Your task to perform on an android device: turn vacation reply on in the gmail app Image 0: 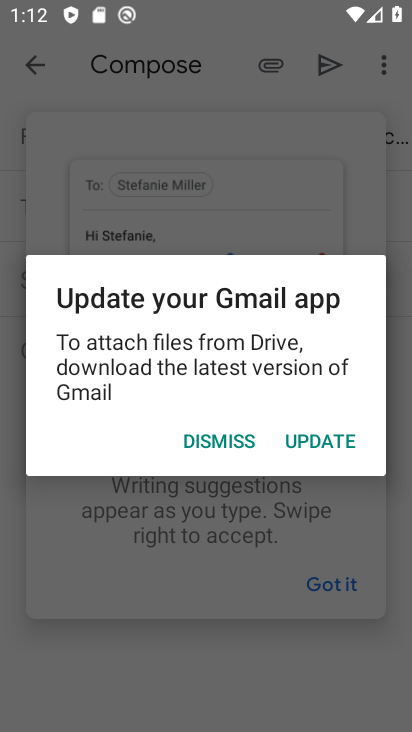
Step 0: press home button
Your task to perform on an android device: turn vacation reply on in the gmail app Image 1: 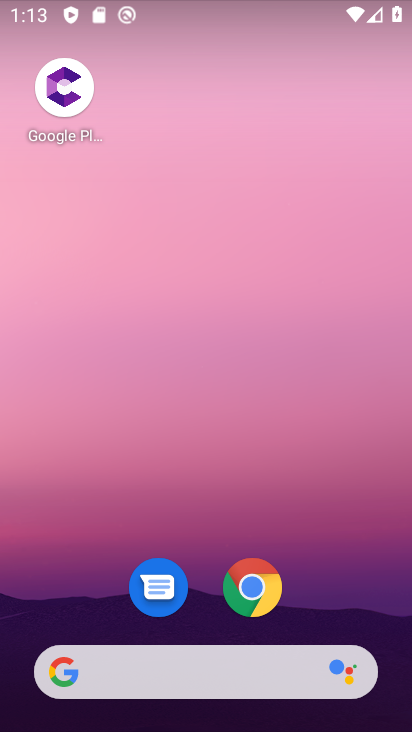
Step 1: drag from (203, 607) to (221, 90)
Your task to perform on an android device: turn vacation reply on in the gmail app Image 2: 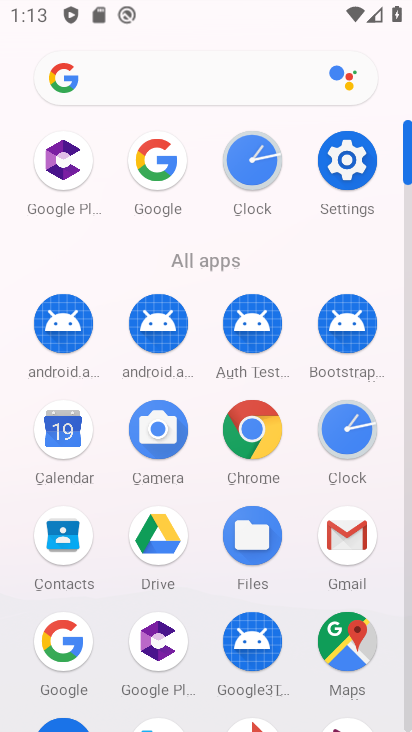
Step 2: click (348, 527)
Your task to perform on an android device: turn vacation reply on in the gmail app Image 3: 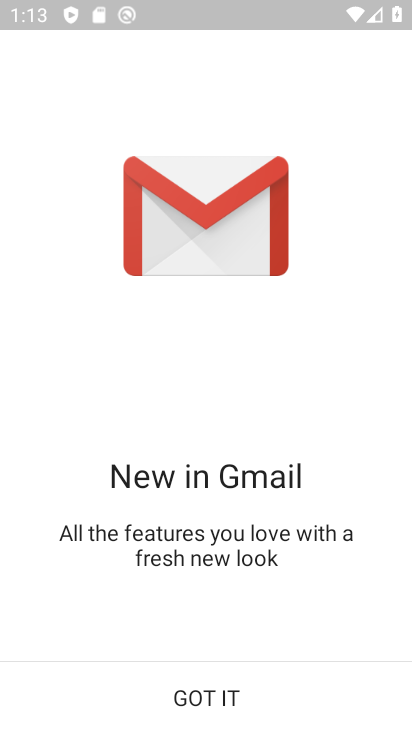
Step 3: click (213, 706)
Your task to perform on an android device: turn vacation reply on in the gmail app Image 4: 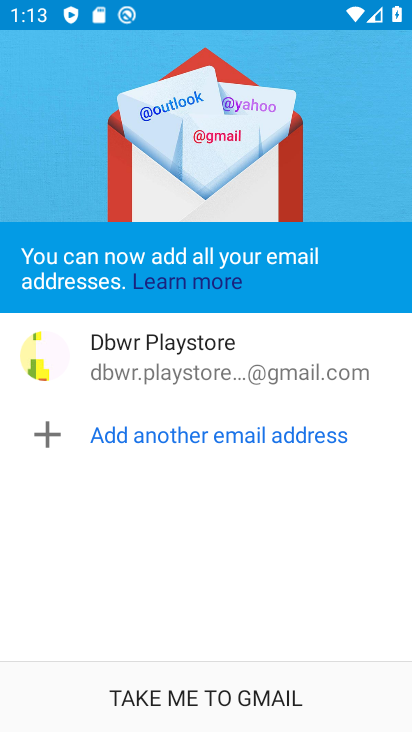
Step 4: click (200, 708)
Your task to perform on an android device: turn vacation reply on in the gmail app Image 5: 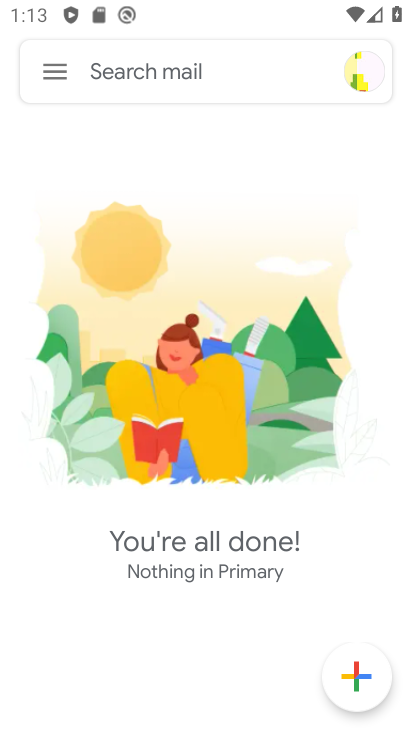
Step 5: click (45, 71)
Your task to perform on an android device: turn vacation reply on in the gmail app Image 6: 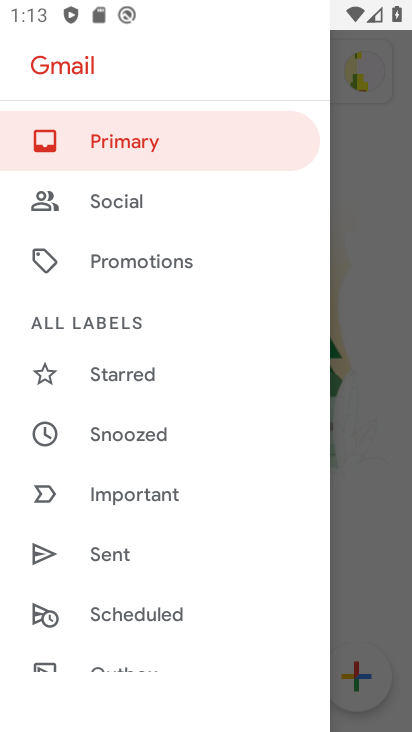
Step 6: drag from (141, 582) to (141, 99)
Your task to perform on an android device: turn vacation reply on in the gmail app Image 7: 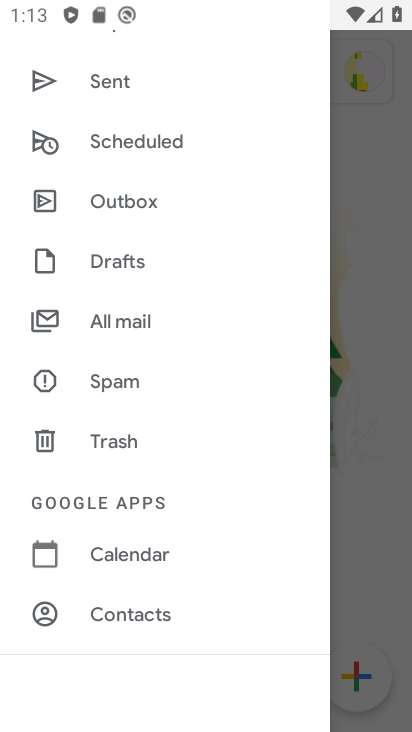
Step 7: drag from (144, 564) to (148, 87)
Your task to perform on an android device: turn vacation reply on in the gmail app Image 8: 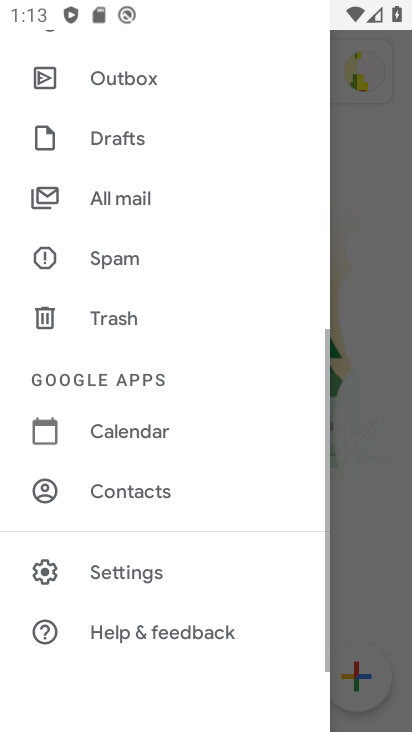
Step 8: click (182, 565)
Your task to perform on an android device: turn vacation reply on in the gmail app Image 9: 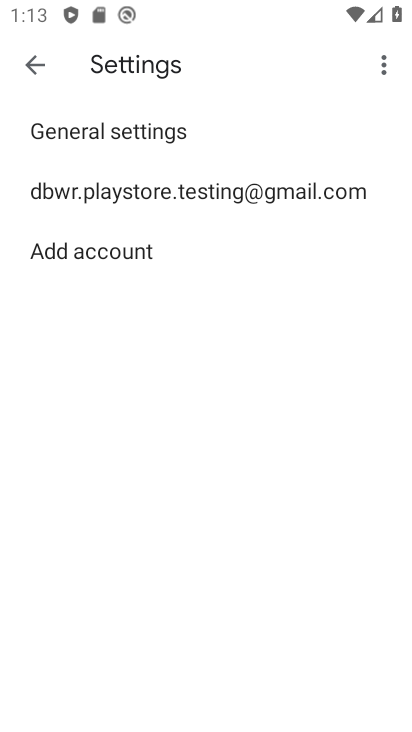
Step 9: click (176, 192)
Your task to perform on an android device: turn vacation reply on in the gmail app Image 10: 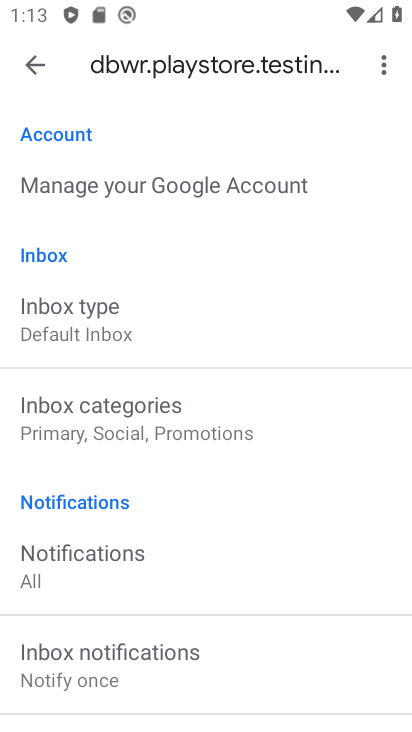
Step 10: drag from (226, 615) to (262, 90)
Your task to perform on an android device: turn vacation reply on in the gmail app Image 11: 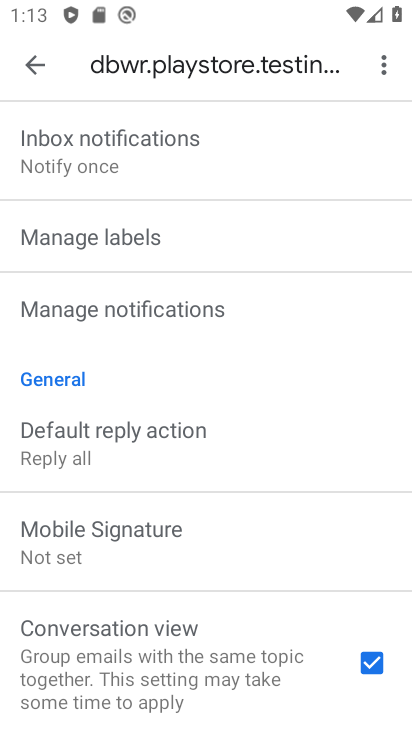
Step 11: drag from (228, 628) to (239, 122)
Your task to perform on an android device: turn vacation reply on in the gmail app Image 12: 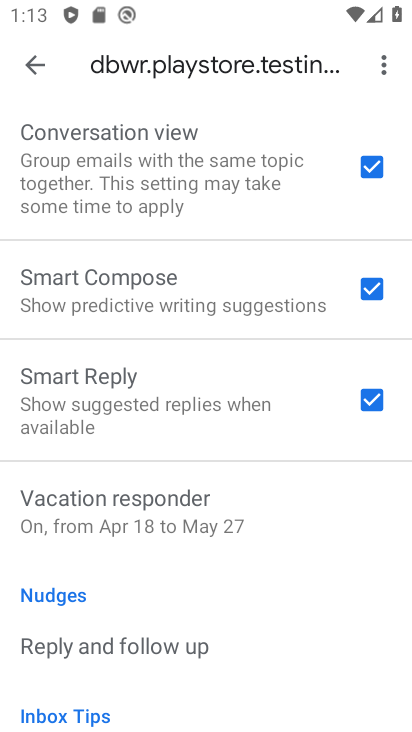
Step 12: click (218, 497)
Your task to perform on an android device: turn vacation reply on in the gmail app Image 13: 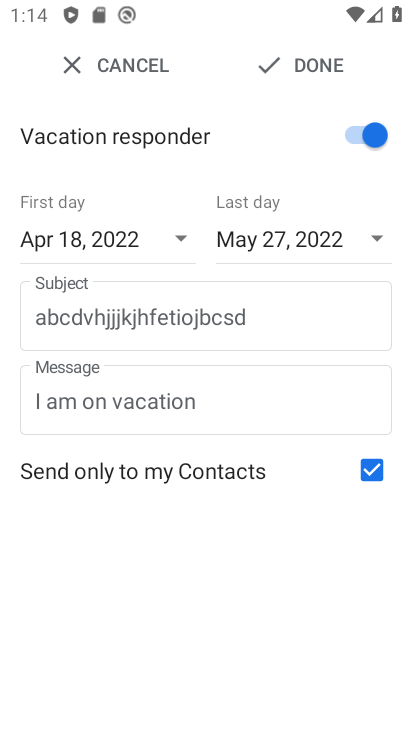
Step 13: task complete